Your task to perform on an android device: Open maps Image 0: 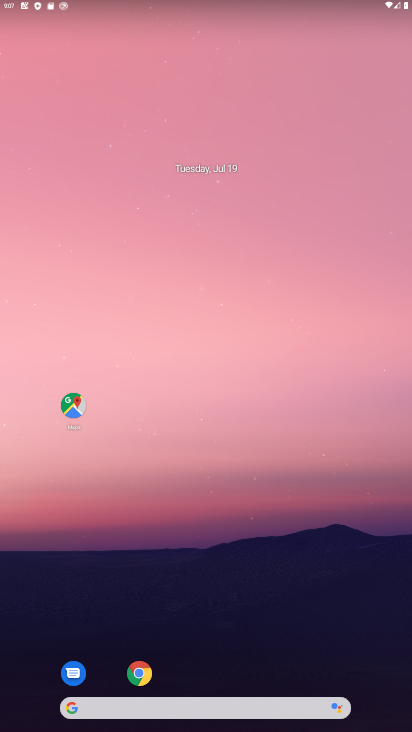
Step 0: click (72, 410)
Your task to perform on an android device: Open maps Image 1: 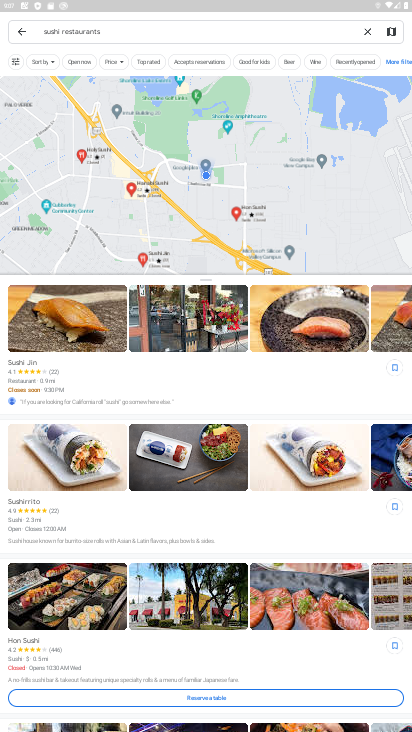
Step 1: task complete